Your task to perform on an android device: check android version Image 0: 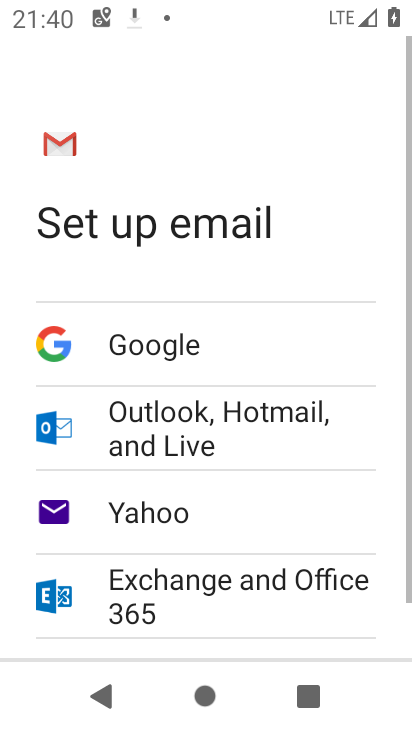
Step 0: press back button
Your task to perform on an android device: check android version Image 1: 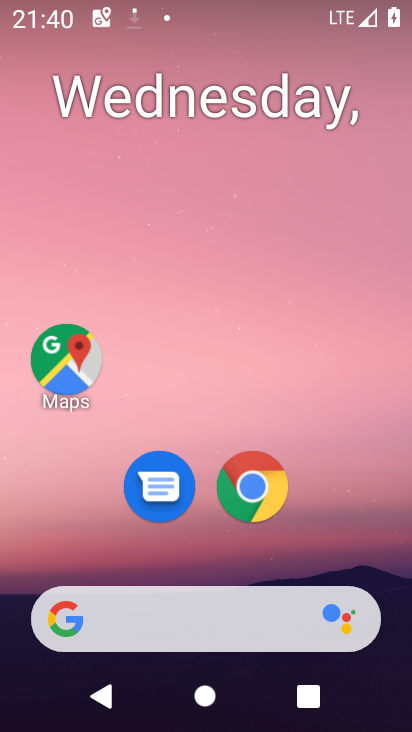
Step 1: drag from (168, 549) to (300, 4)
Your task to perform on an android device: check android version Image 2: 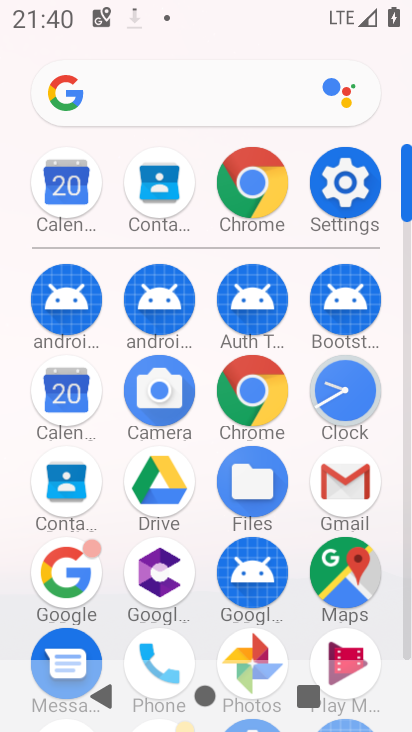
Step 2: click (357, 160)
Your task to perform on an android device: check android version Image 3: 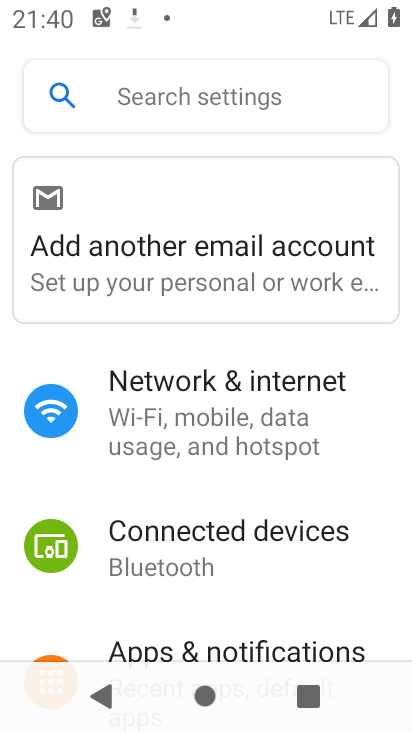
Step 3: drag from (256, 699) to (358, 107)
Your task to perform on an android device: check android version Image 4: 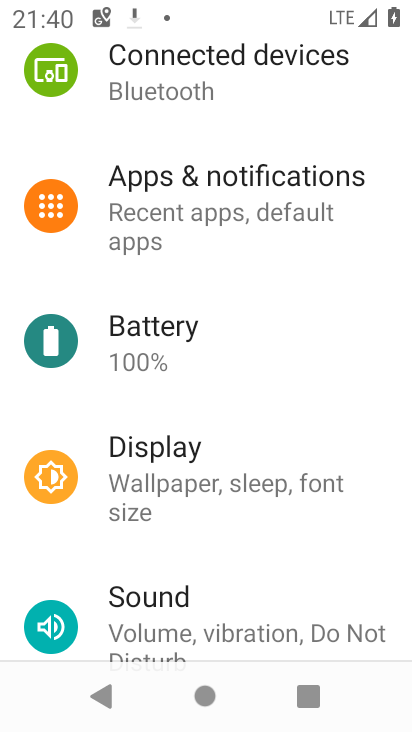
Step 4: drag from (194, 618) to (272, 37)
Your task to perform on an android device: check android version Image 5: 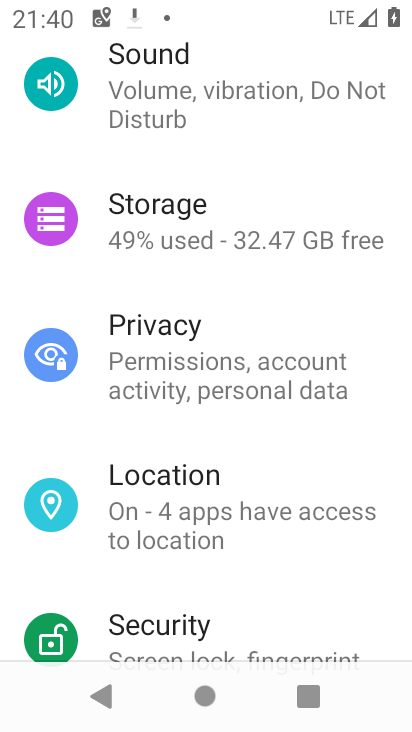
Step 5: drag from (183, 675) to (289, 14)
Your task to perform on an android device: check android version Image 6: 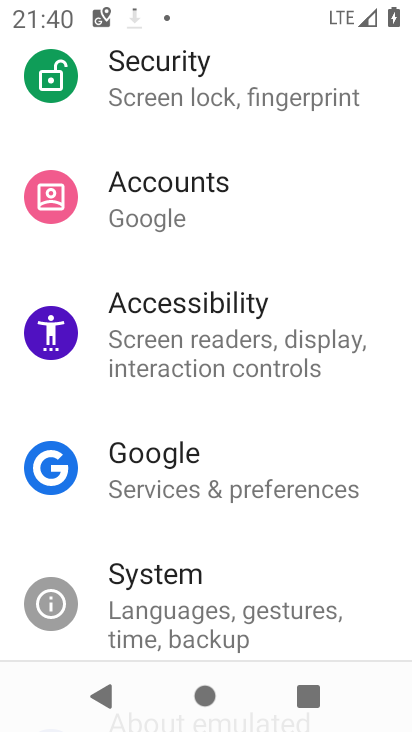
Step 6: drag from (166, 654) to (240, 1)
Your task to perform on an android device: check android version Image 7: 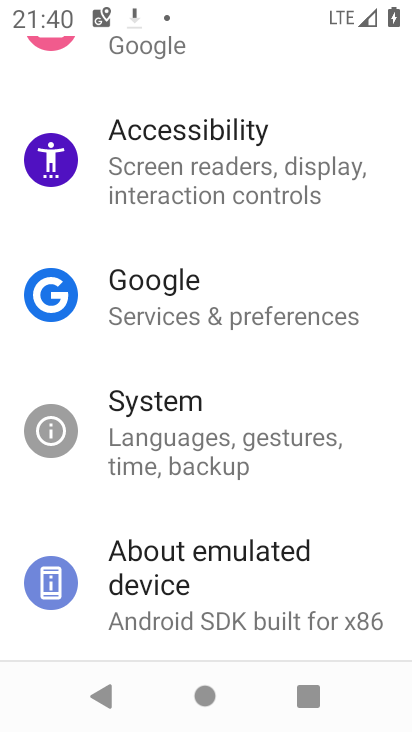
Step 7: click (177, 574)
Your task to perform on an android device: check android version Image 8: 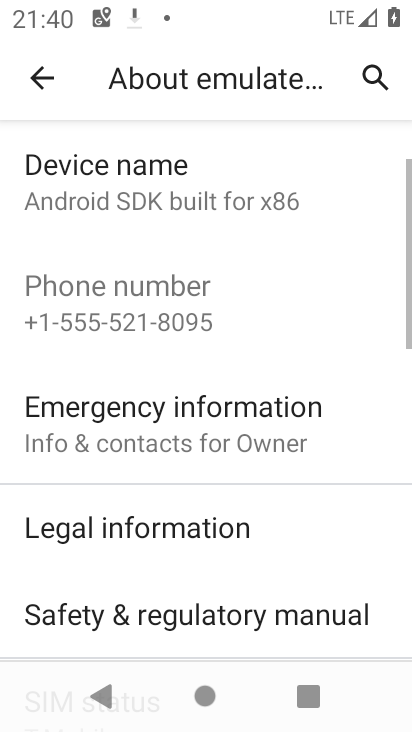
Step 8: drag from (179, 578) to (283, 21)
Your task to perform on an android device: check android version Image 9: 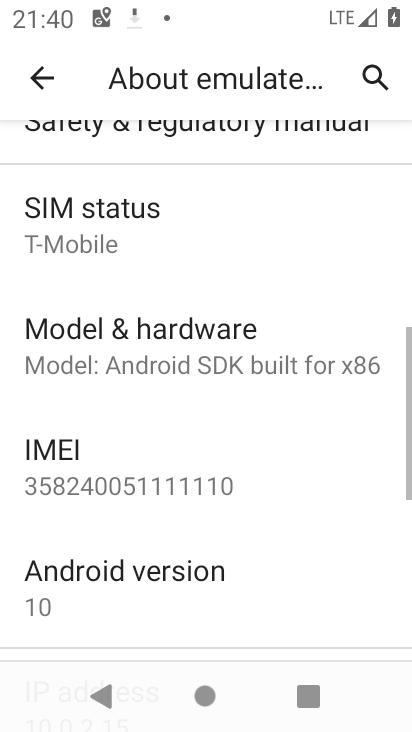
Step 9: click (124, 597)
Your task to perform on an android device: check android version Image 10: 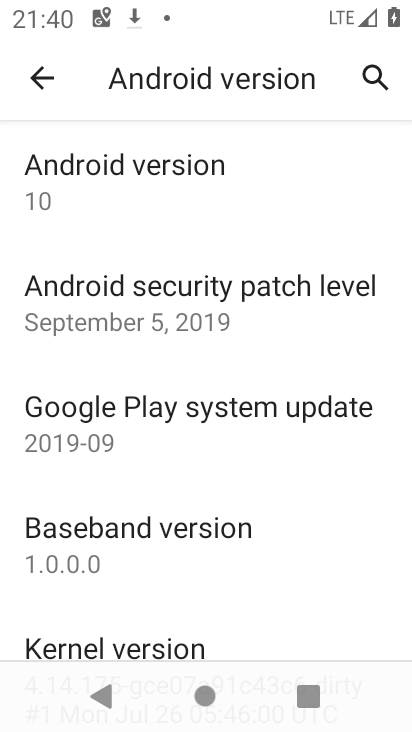
Step 10: task complete